Your task to perform on an android device: star an email in the gmail app Image 0: 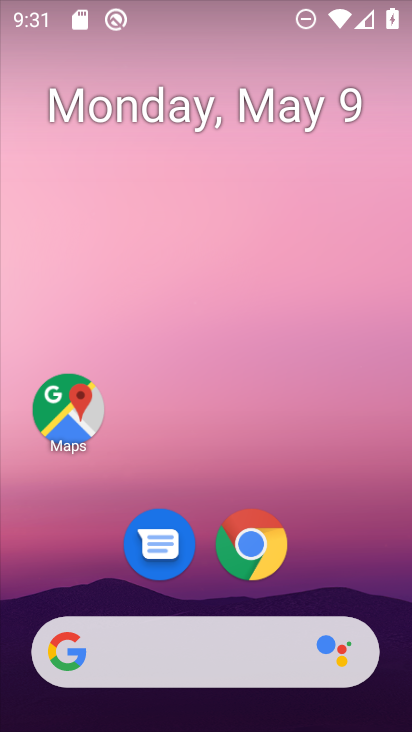
Step 0: drag from (343, 527) to (246, 69)
Your task to perform on an android device: star an email in the gmail app Image 1: 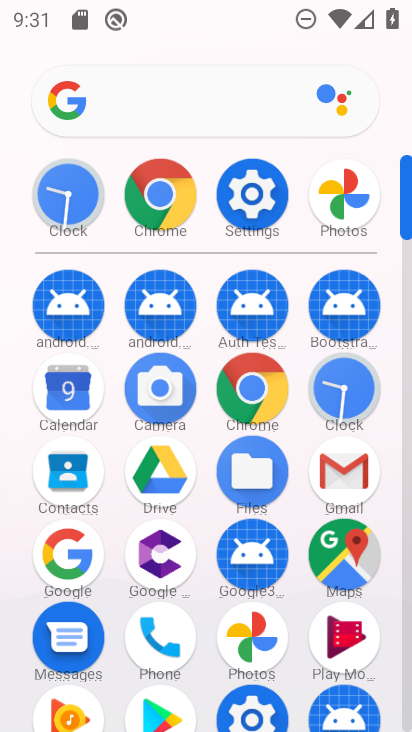
Step 1: click (329, 469)
Your task to perform on an android device: star an email in the gmail app Image 2: 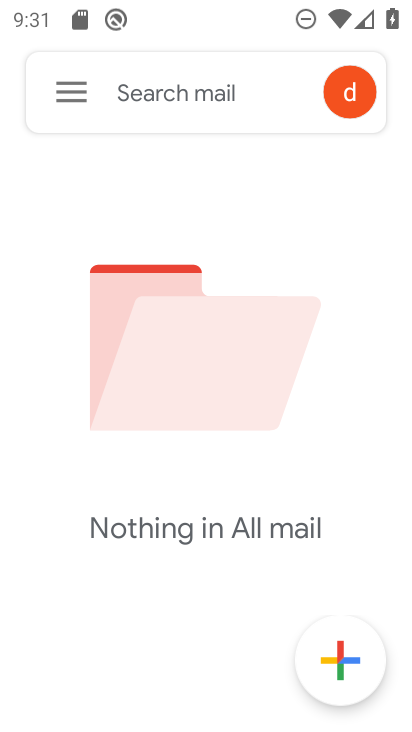
Step 2: click (66, 94)
Your task to perform on an android device: star an email in the gmail app Image 3: 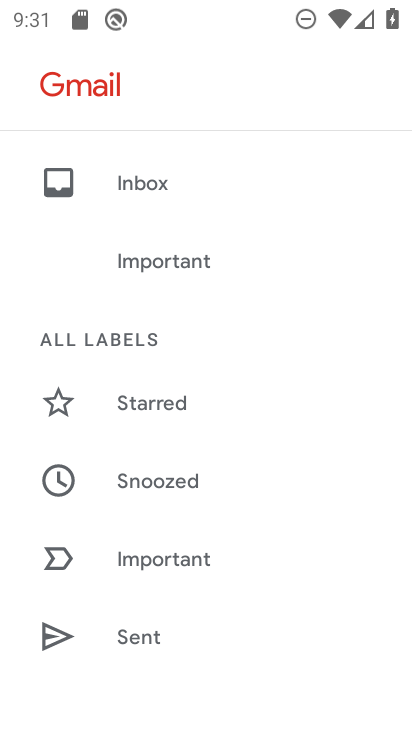
Step 3: task complete